Your task to perform on an android device: change the clock display to analog Image 0: 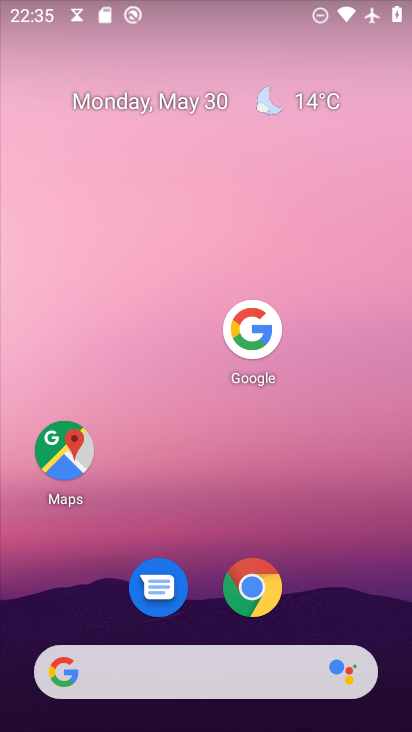
Step 0: press home button
Your task to perform on an android device: change the clock display to analog Image 1: 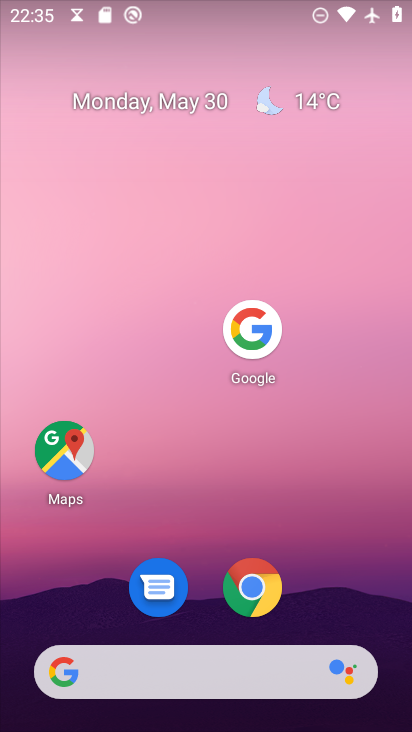
Step 1: drag from (179, 679) to (281, 93)
Your task to perform on an android device: change the clock display to analog Image 2: 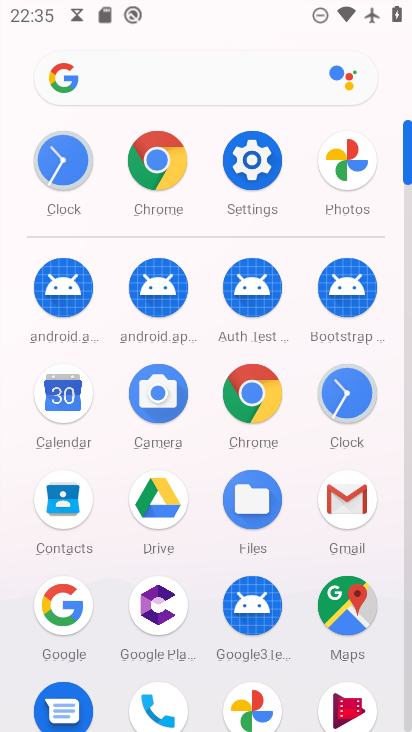
Step 2: click (333, 395)
Your task to perform on an android device: change the clock display to analog Image 3: 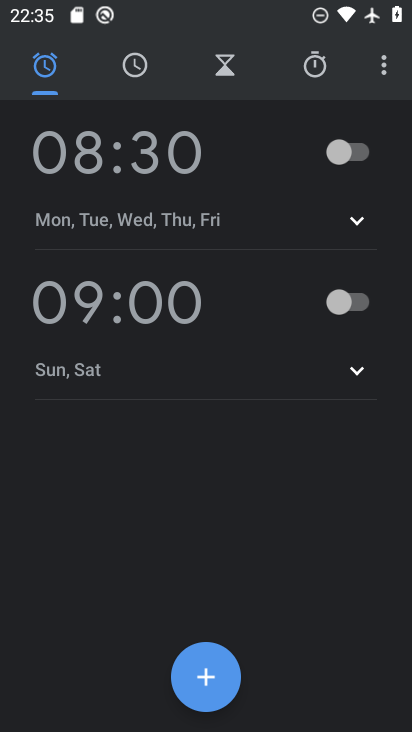
Step 3: click (386, 67)
Your task to perform on an android device: change the clock display to analog Image 4: 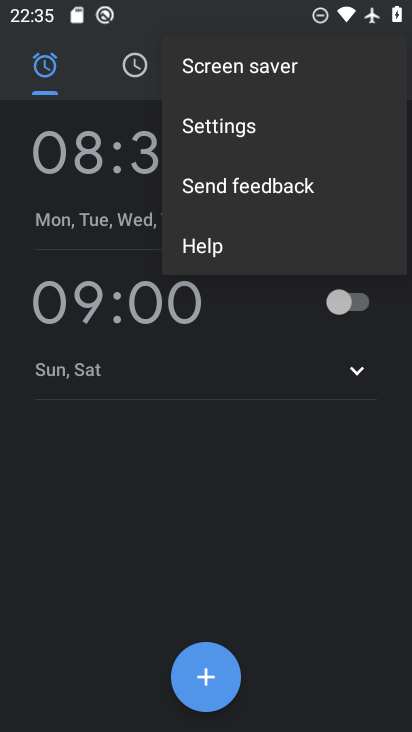
Step 4: click (254, 124)
Your task to perform on an android device: change the clock display to analog Image 5: 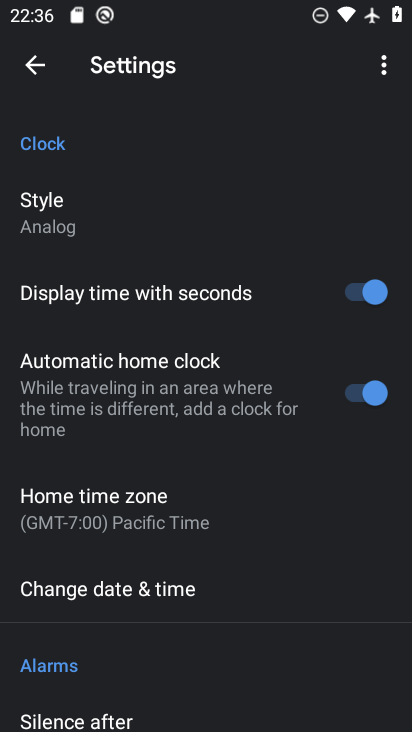
Step 5: task complete